Your task to perform on an android device: Open Reddit.com Image 0: 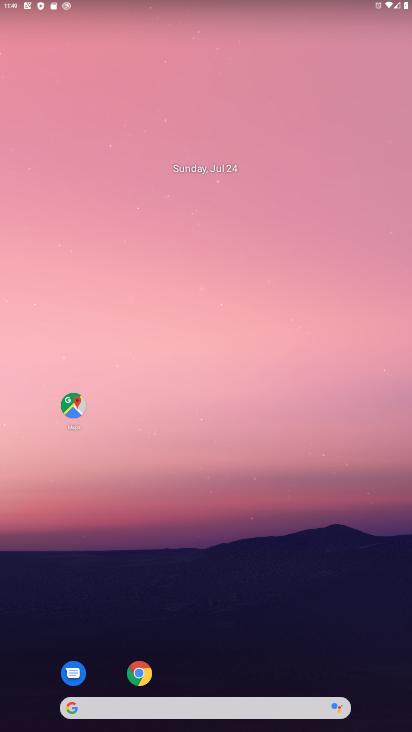
Step 0: drag from (303, 580) to (219, 45)
Your task to perform on an android device: Open Reddit.com Image 1: 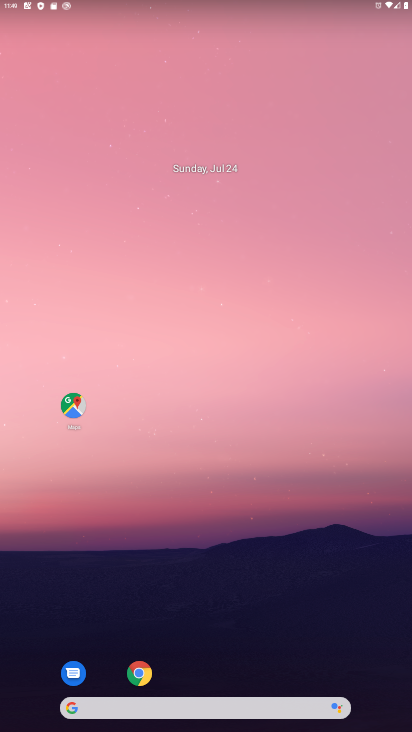
Step 1: drag from (275, 567) to (207, 4)
Your task to perform on an android device: Open Reddit.com Image 2: 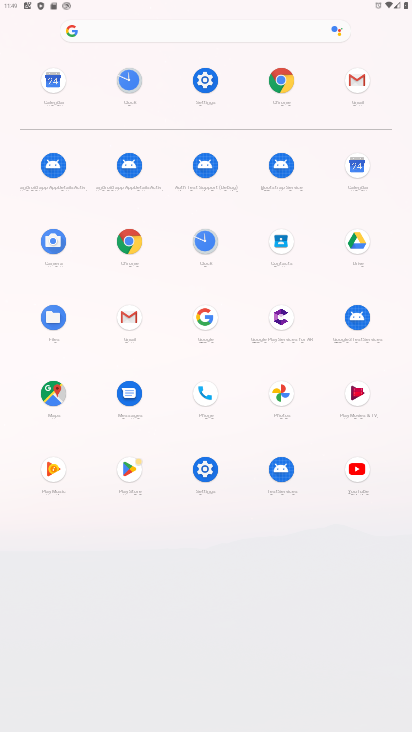
Step 2: click (286, 80)
Your task to perform on an android device: Open Reddit.com Image 3: 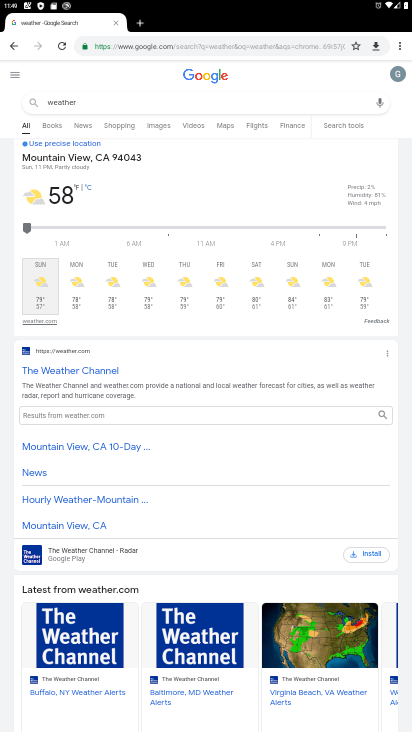
Step 3: click (183, 45)
Your task to perform on an android device: Open Reddit.com Image 4: 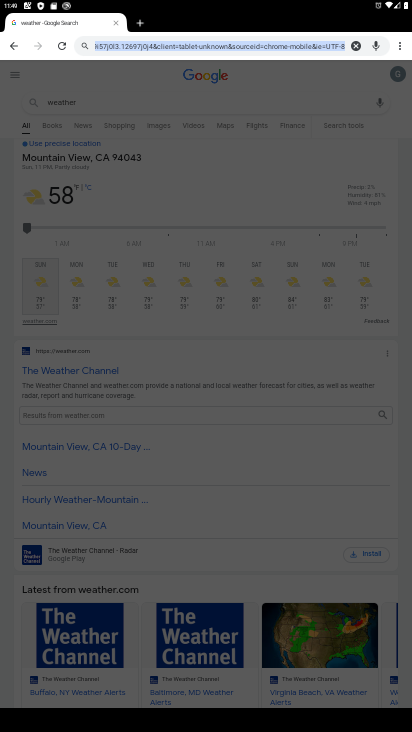
Step 4: type "reddit.com"
Your task to perform on an android device: Open Reddit.com Image 5: 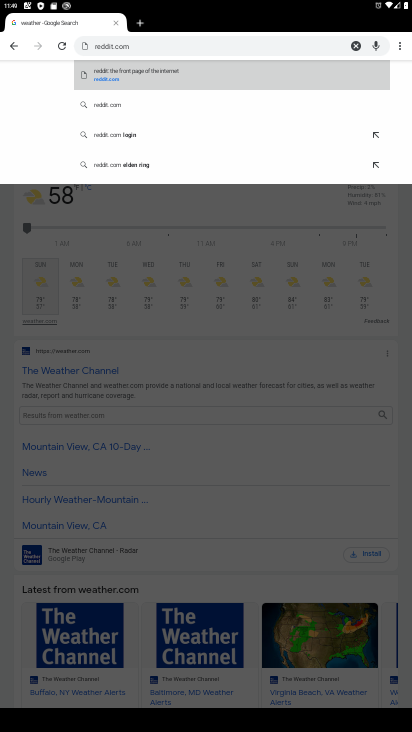
Step 5: click (115, 75)
Your task to perform on an android device: Open Reddit.com Image 6: 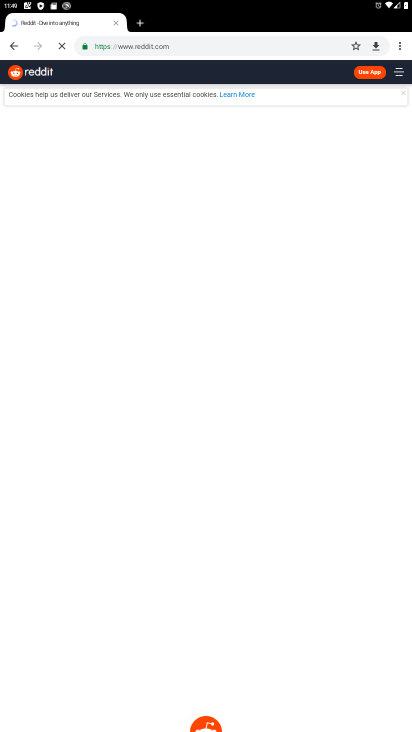
Step 6: task complete